Your task to perform on an android device: Clear all items from cart on newegg.com. Add lenovo thinkpad to the cart on newegg.com, then select checkout. Image 0: 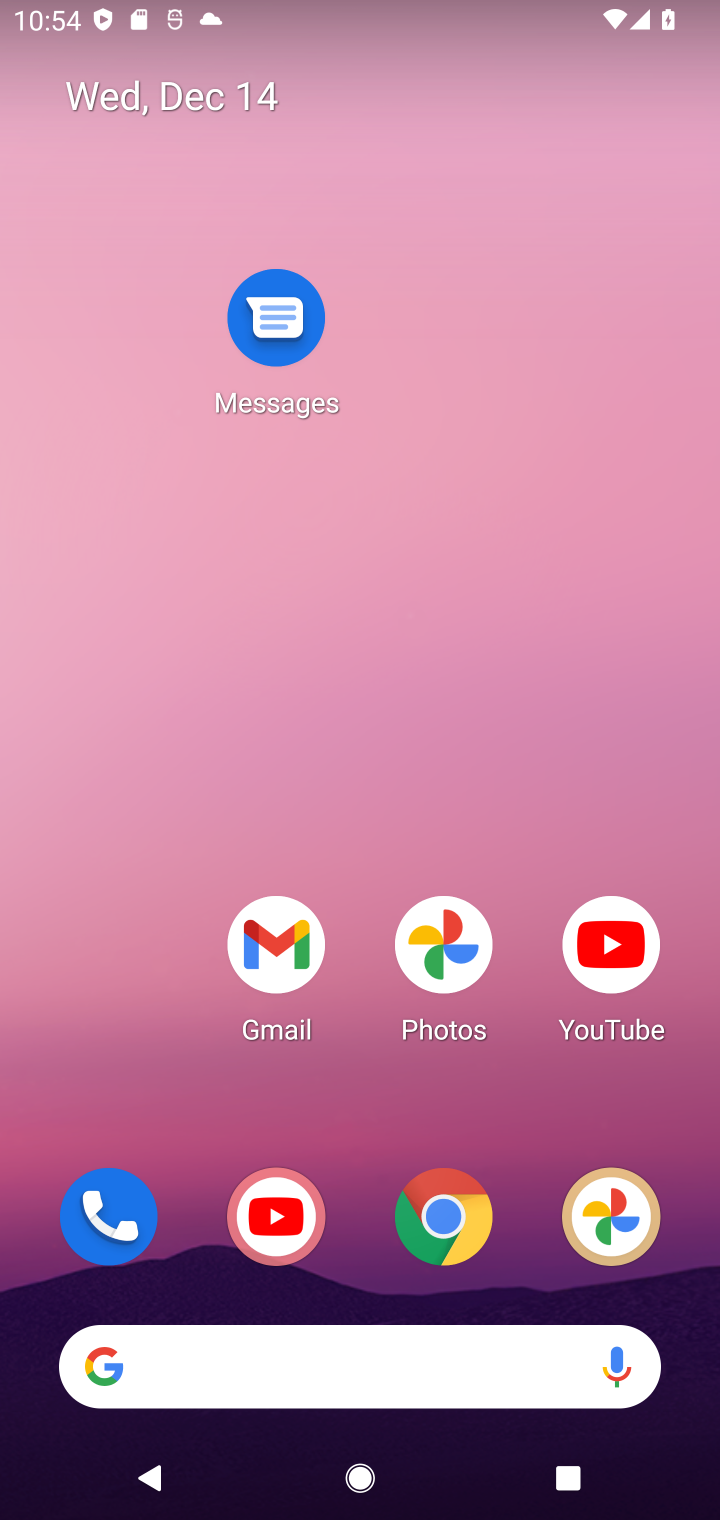
Step 0: drag from (310, 1189) to (335, 258)
Your task to perform on an android device: Clear all items from cart on newegg.com. Add lenovo thinkpad to the cart on newegg.com, then select checkout. Image 1: 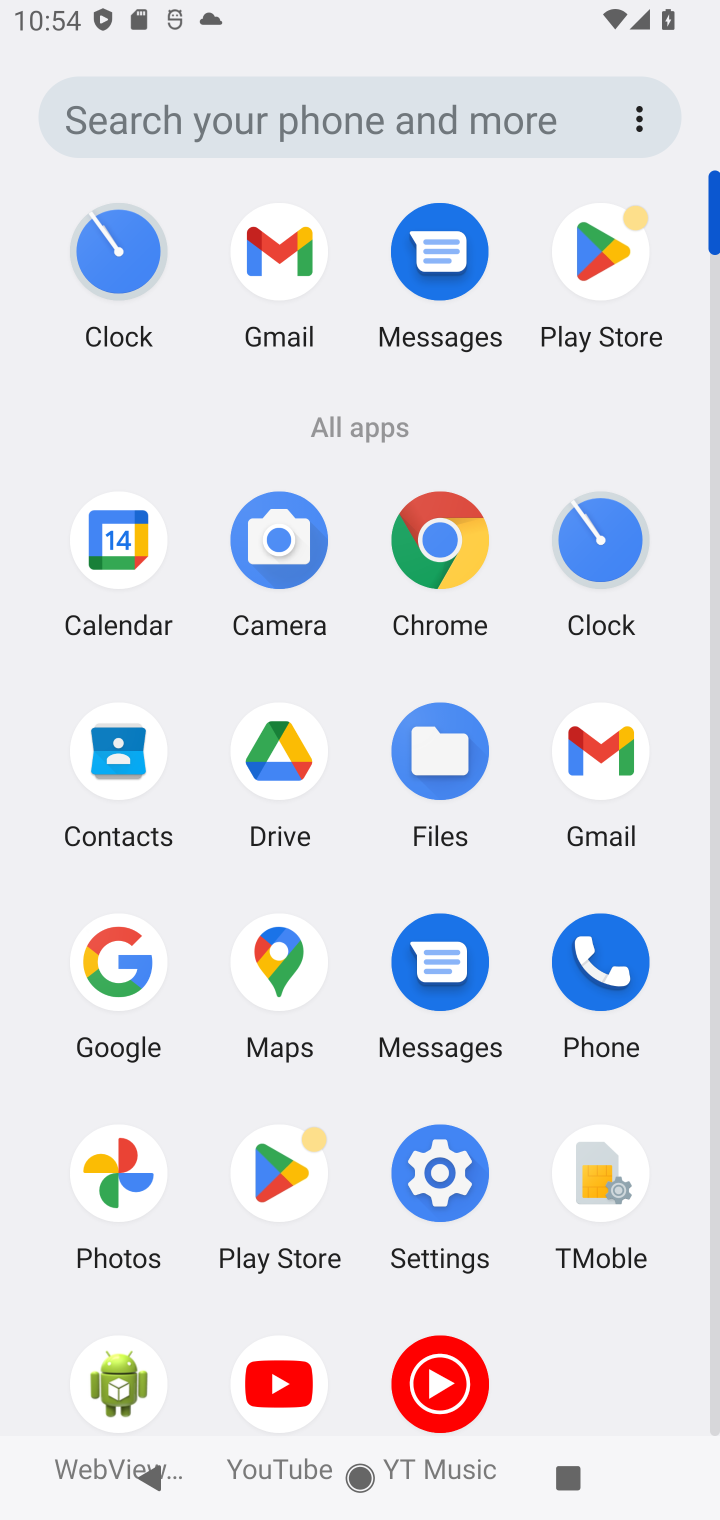
Step 1: click (91, 953)
Your task to perform on an android device: Clear all items from cart on newegg.com. Add lenovo thinkpad to the cart on newegg.com, then select checkout. Image 2: 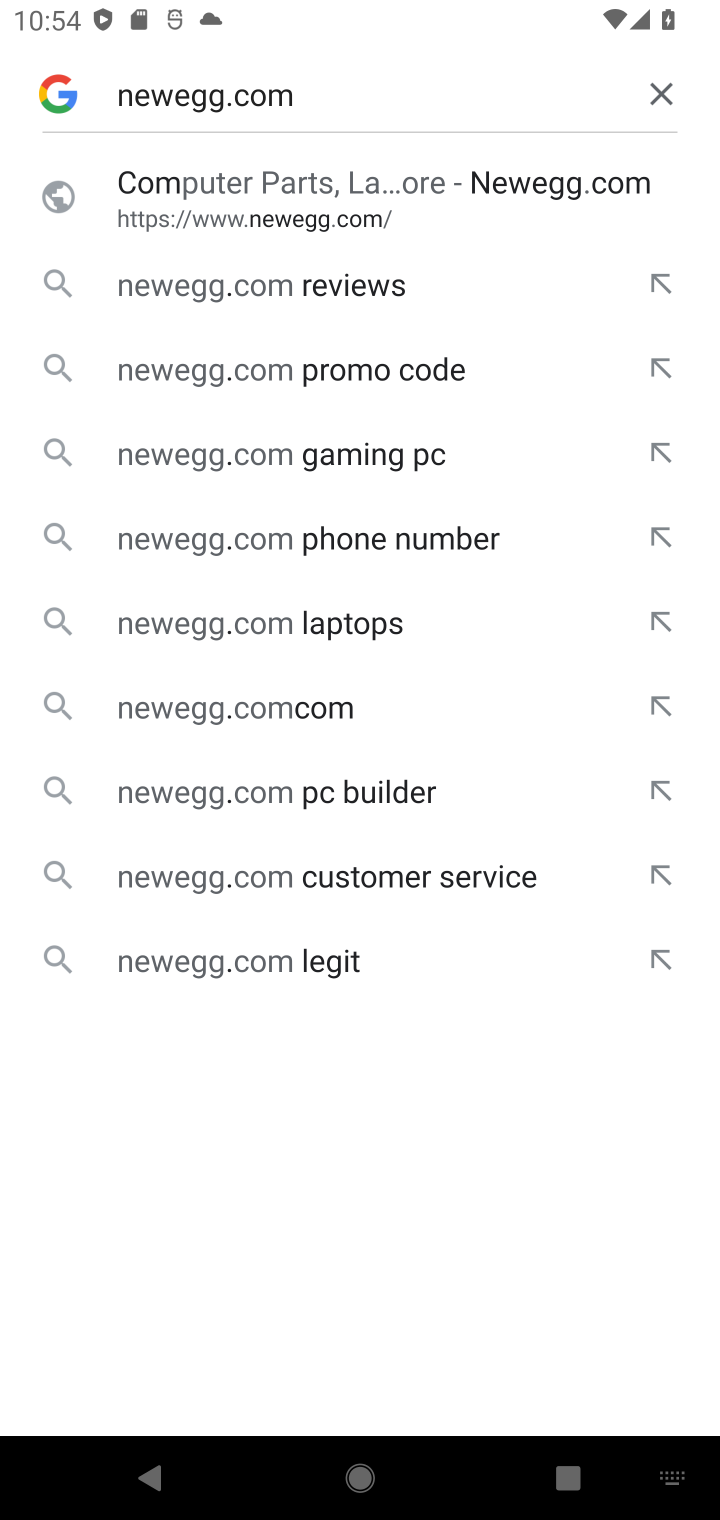
Step 2: click (260, 187)
Your task to perform on an android device: Clear all items from cart on newegg.com. Add lenovo thinkpad to the cart on newegg.com, then select checkout. Image 3: 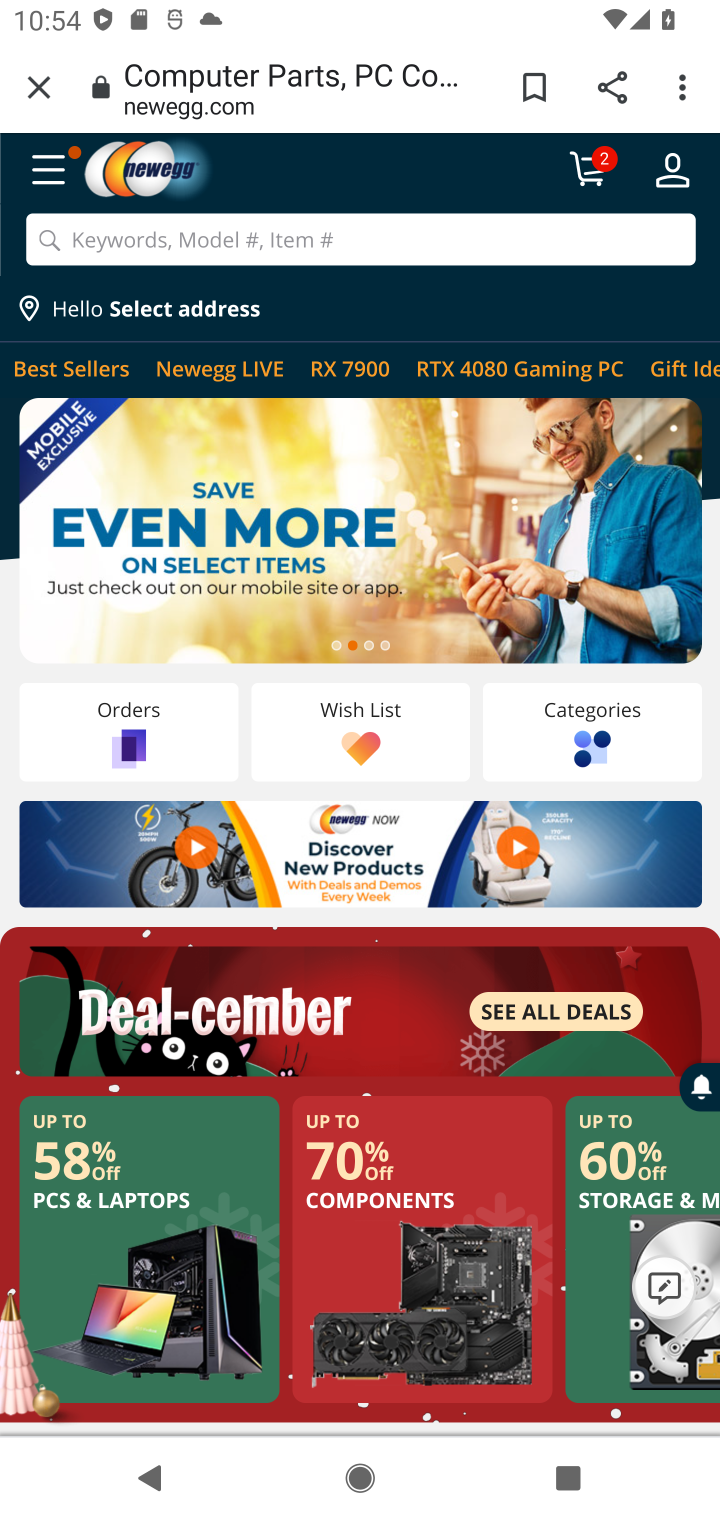
Step 3: click (588, 169)
Your task to perform on an android device: Clear all items from cart on newegg.com. Add lenovo thinkpad to the cart on newegg.com, then select checkout. Image 4: 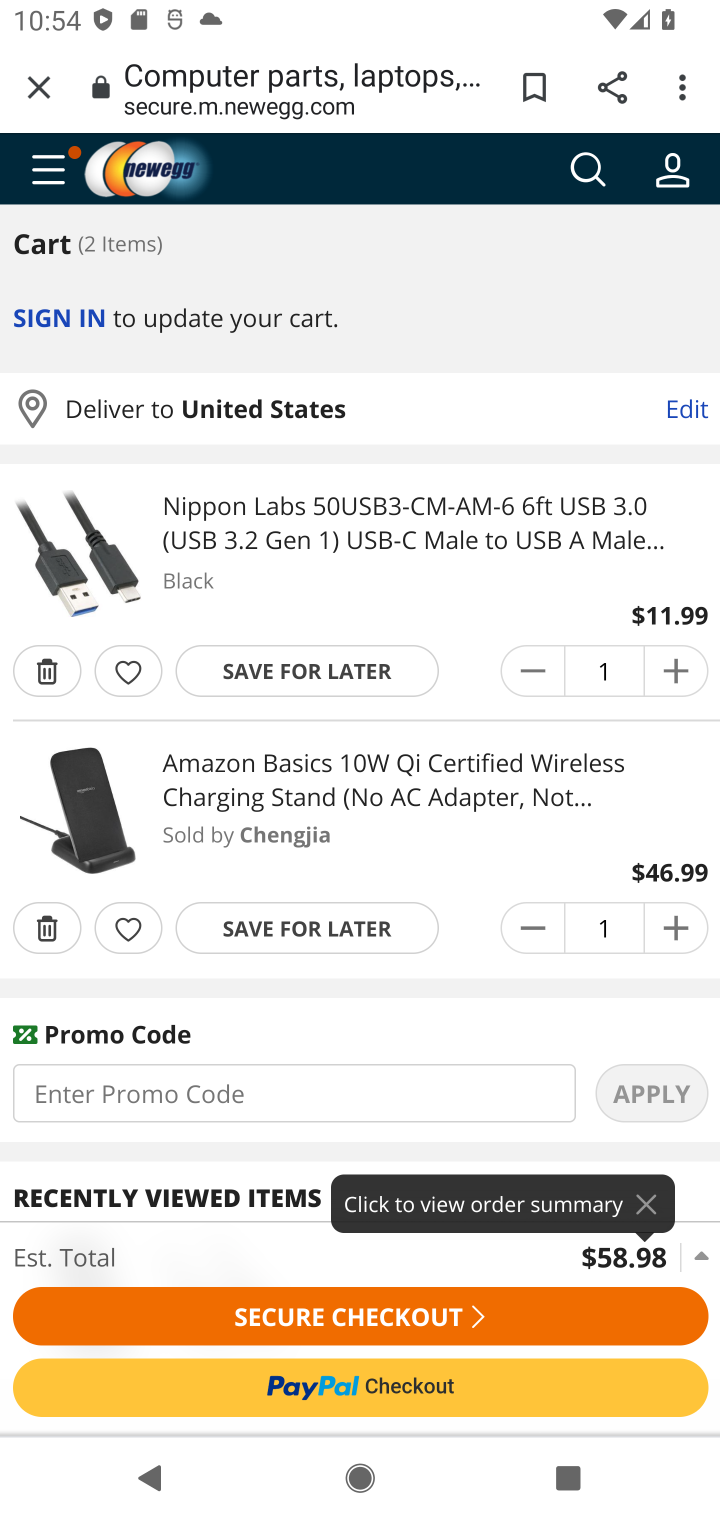
Step 4: click (43, 664)
Your task to perform on an android device: Clear all items from cart on newegg.com. Add lenovo thinkpad to the cart on newegg.com, then select checkout. Image 5: 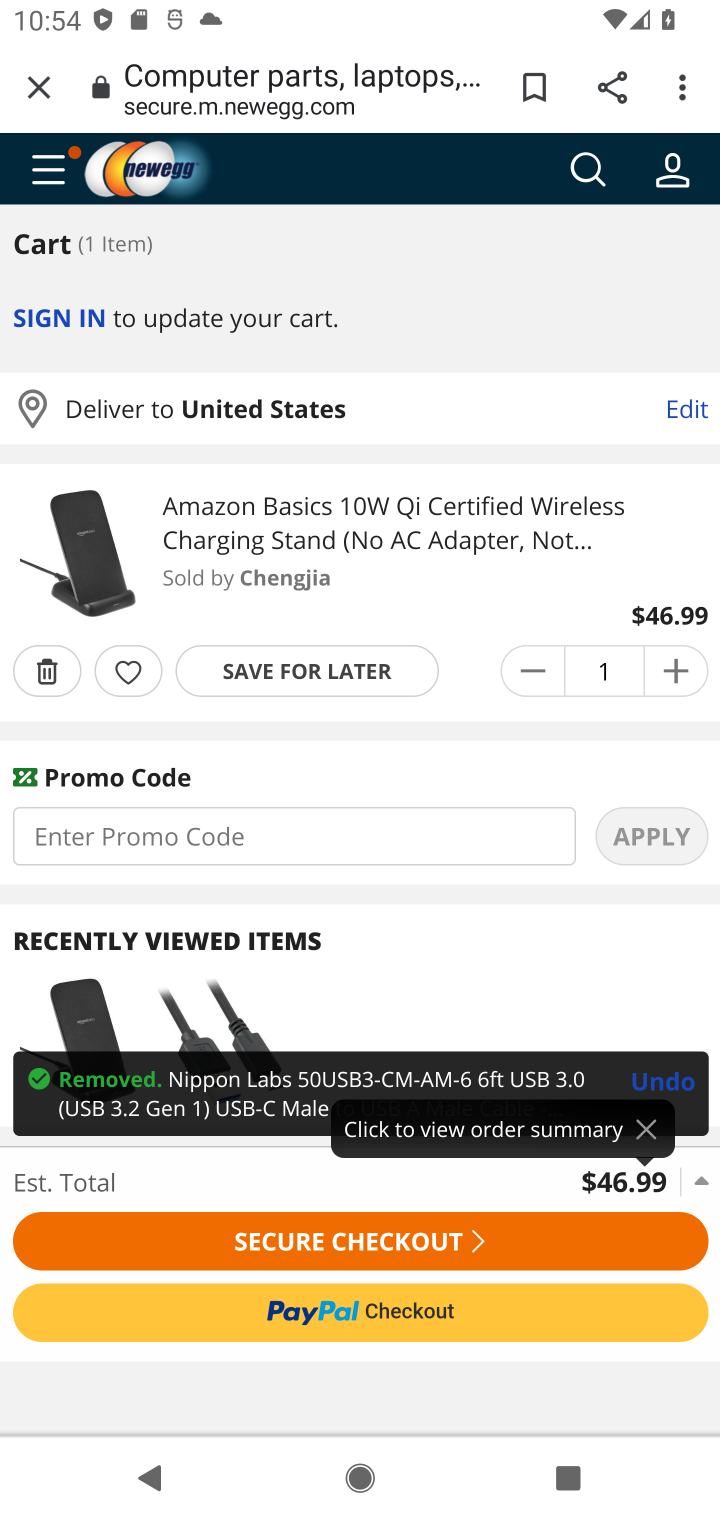
Step 5: click (43, 664)
Your task to perform on an android device: Clear all items from cart on newegg.com. Add lenovo thinkpad to the cart on newegg.com, then select checkout. Image 6: 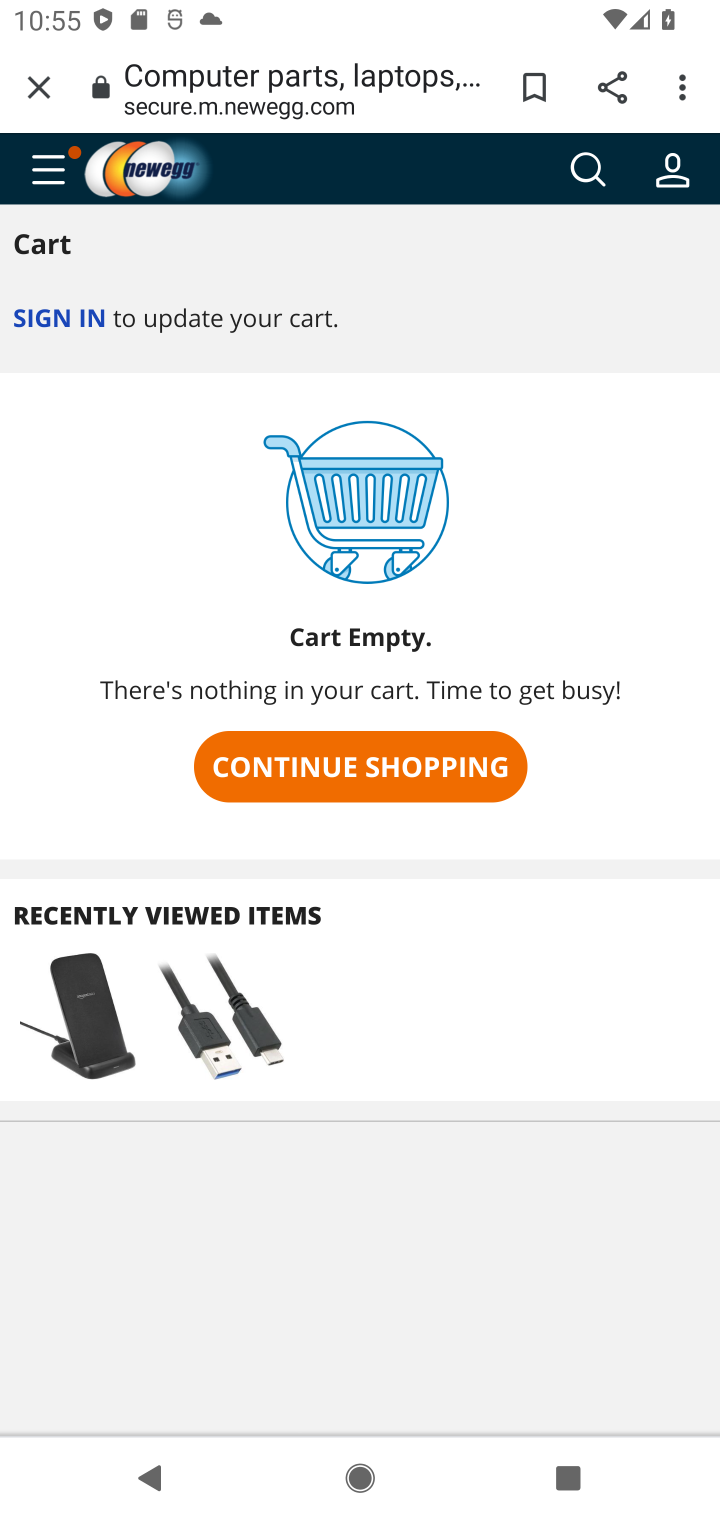
Step 6: click (588, 175)
Your task to perform on an android device: Clear all items from cart on newegg.com. Add lenovo thinkpad to the cart on newegg.com, then select checkout. Image 7: 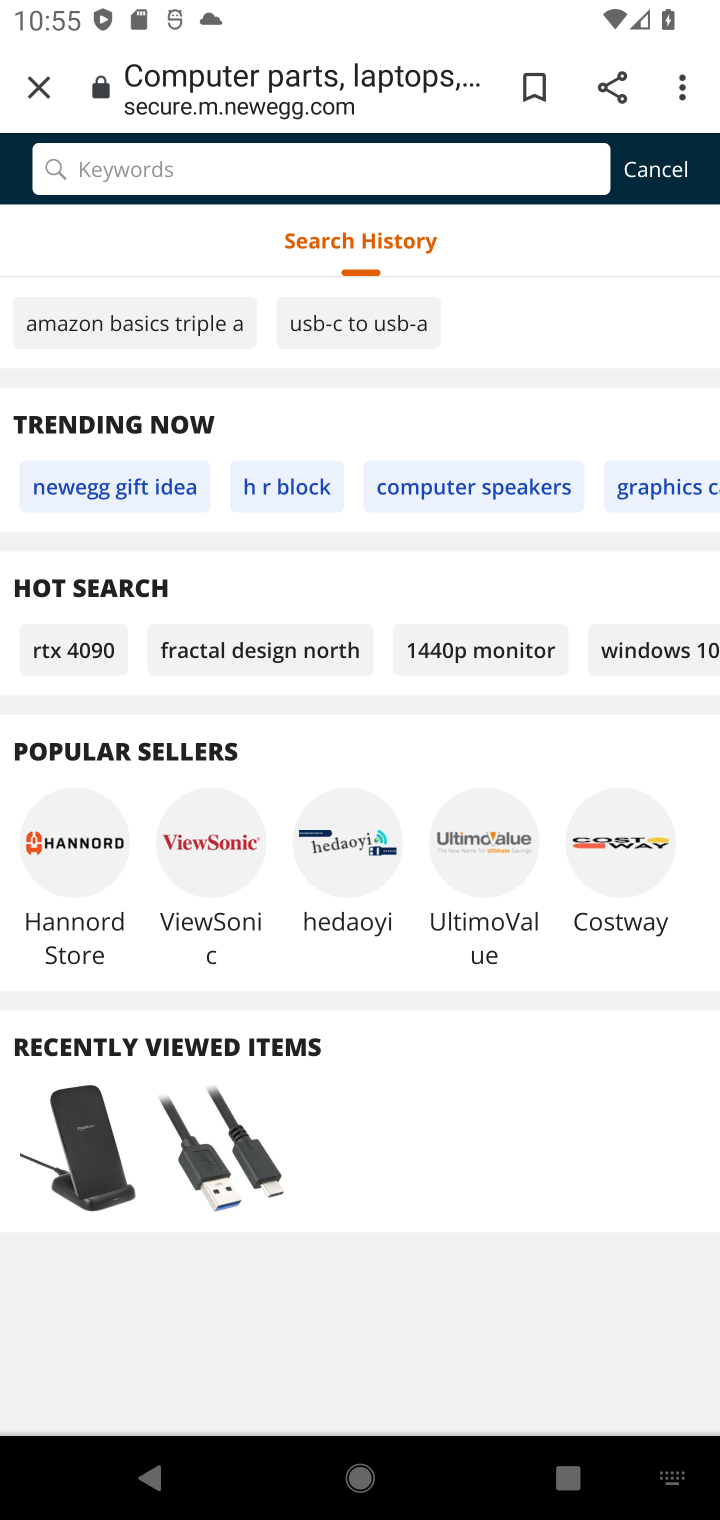
Step 7: type "lenovo thinkpad "
Your task to perform on an android device: Clear all items from cart on newegg.com. Add lenovo thinkpad to the cart on newegg.com, then select checkout. Image 8: 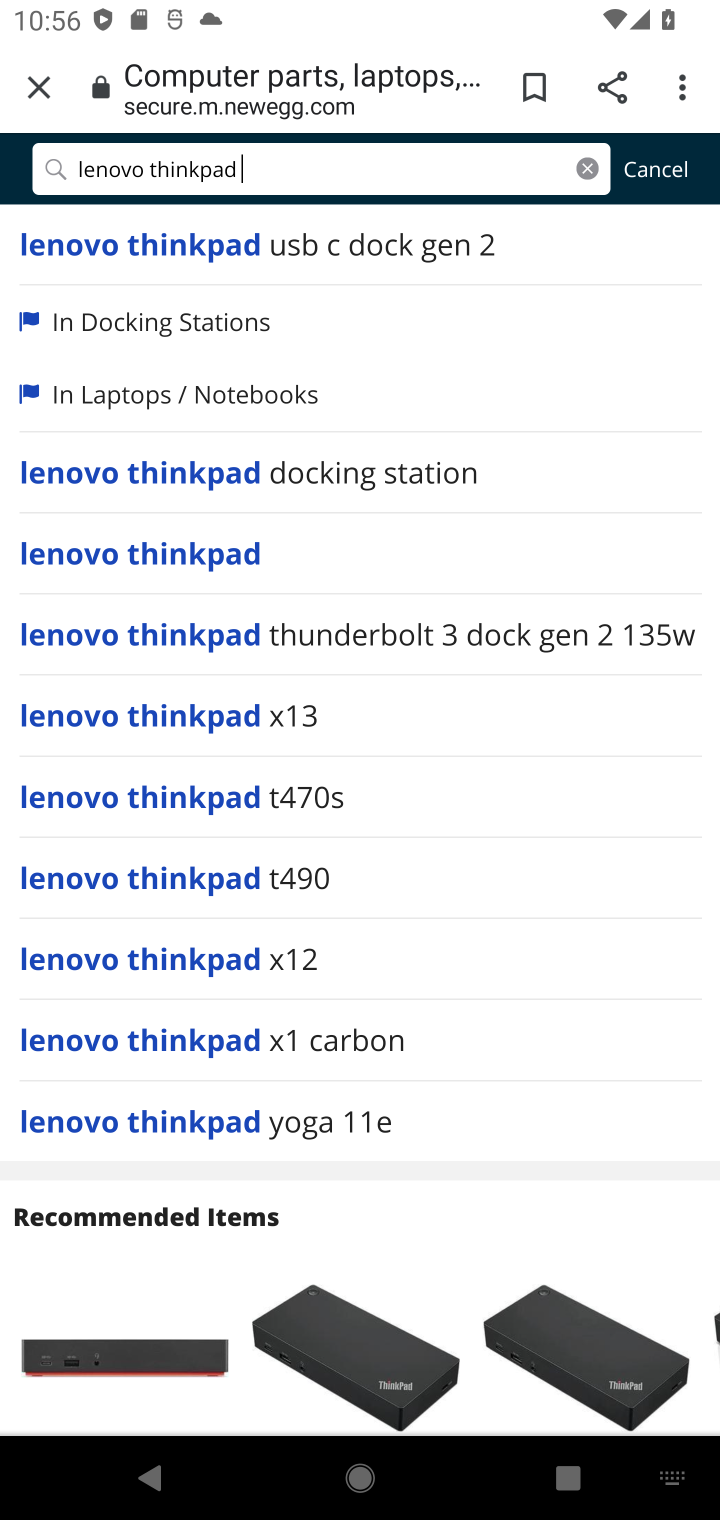
Step 8: click (140, 248)
Your task to perform on an android device: Clear all items from cart on newegg.com. Add lenovo thinkpad to the cart on newegg.com, then select checkout. Image 9: 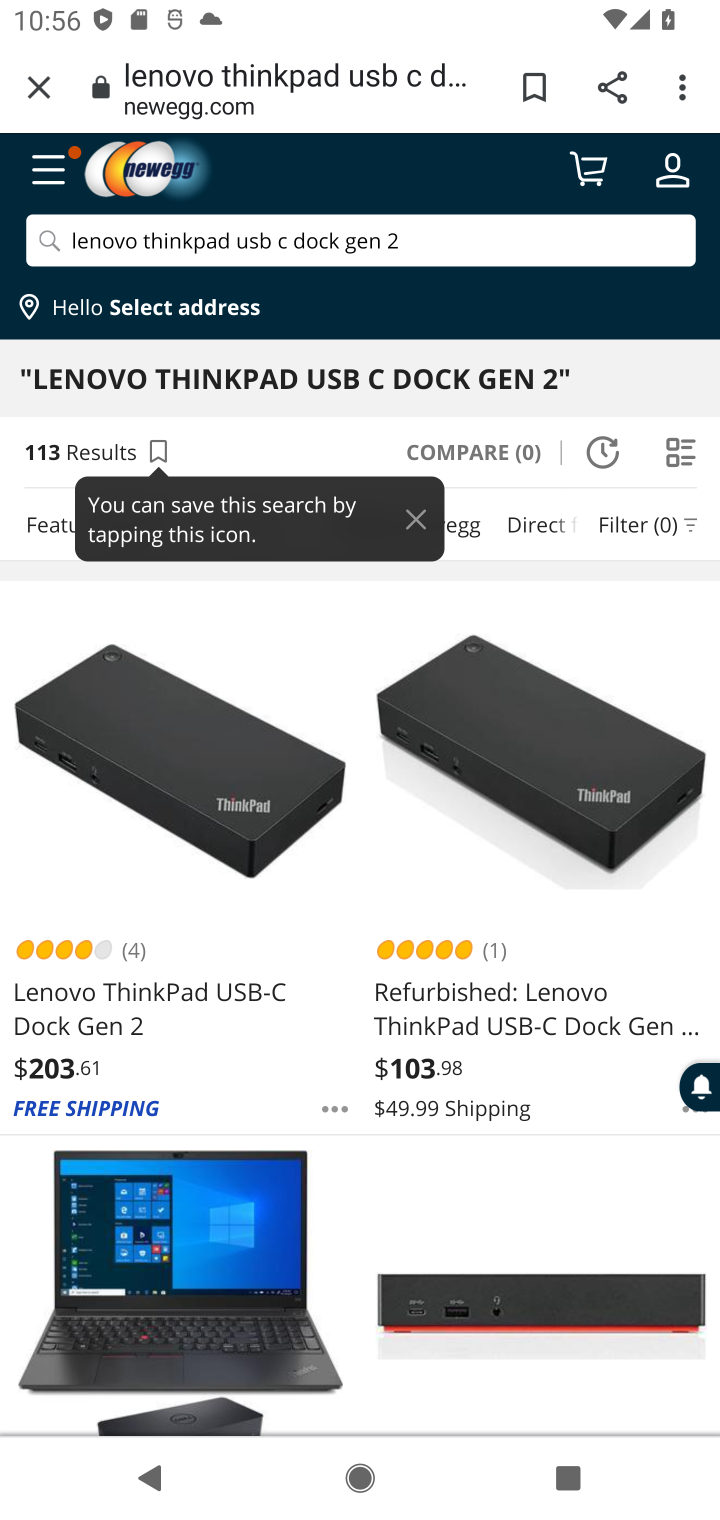
Step 9: click (124, 1006)
Your task to perform on an android device: Clear all items from cart on newegg.com. Add lenovo thinkpad to the cart on newegg.com, then select checkout. Image 10: 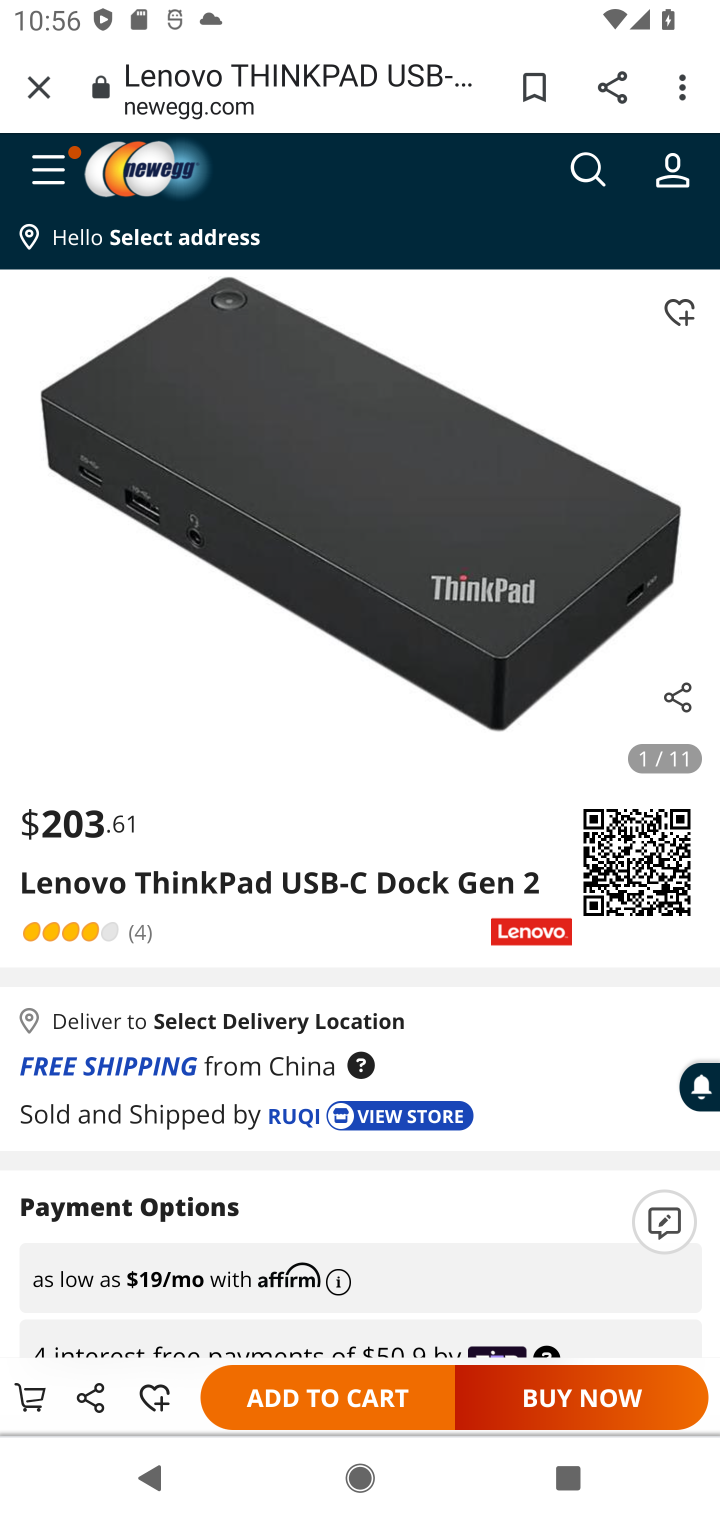
Step 10: click (343, 1401)
Your task to perform on an android device: Clear all items from cart on newegg.com. Add lenovo thinkpad to the cart on newegg.com, then select checkout. Image 11: 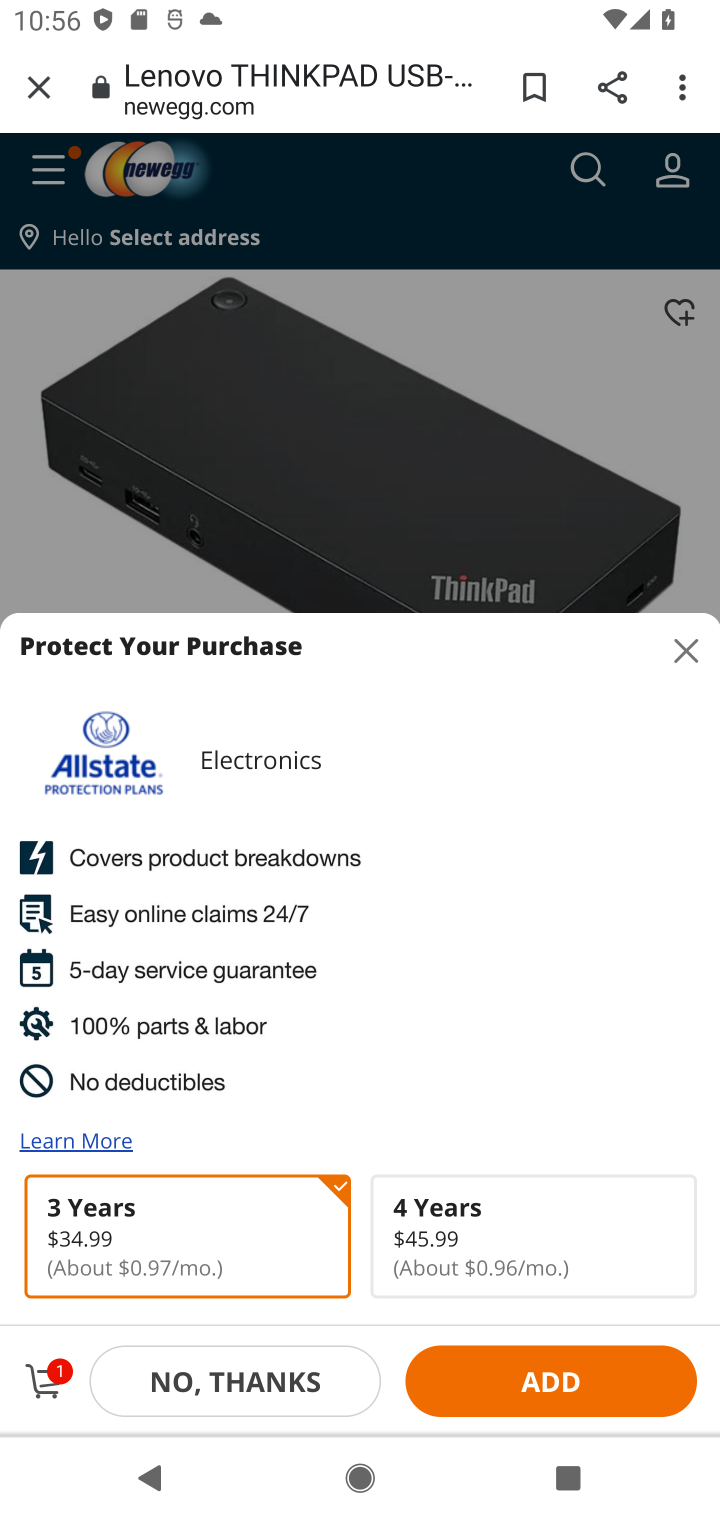
Step 11: click (39, 1377)
Your task to perform on an android device: Clear all items from cart on newegg.com. Add lenovo thinkpad to the cart on newegg.com, then select checkout. Image 12: 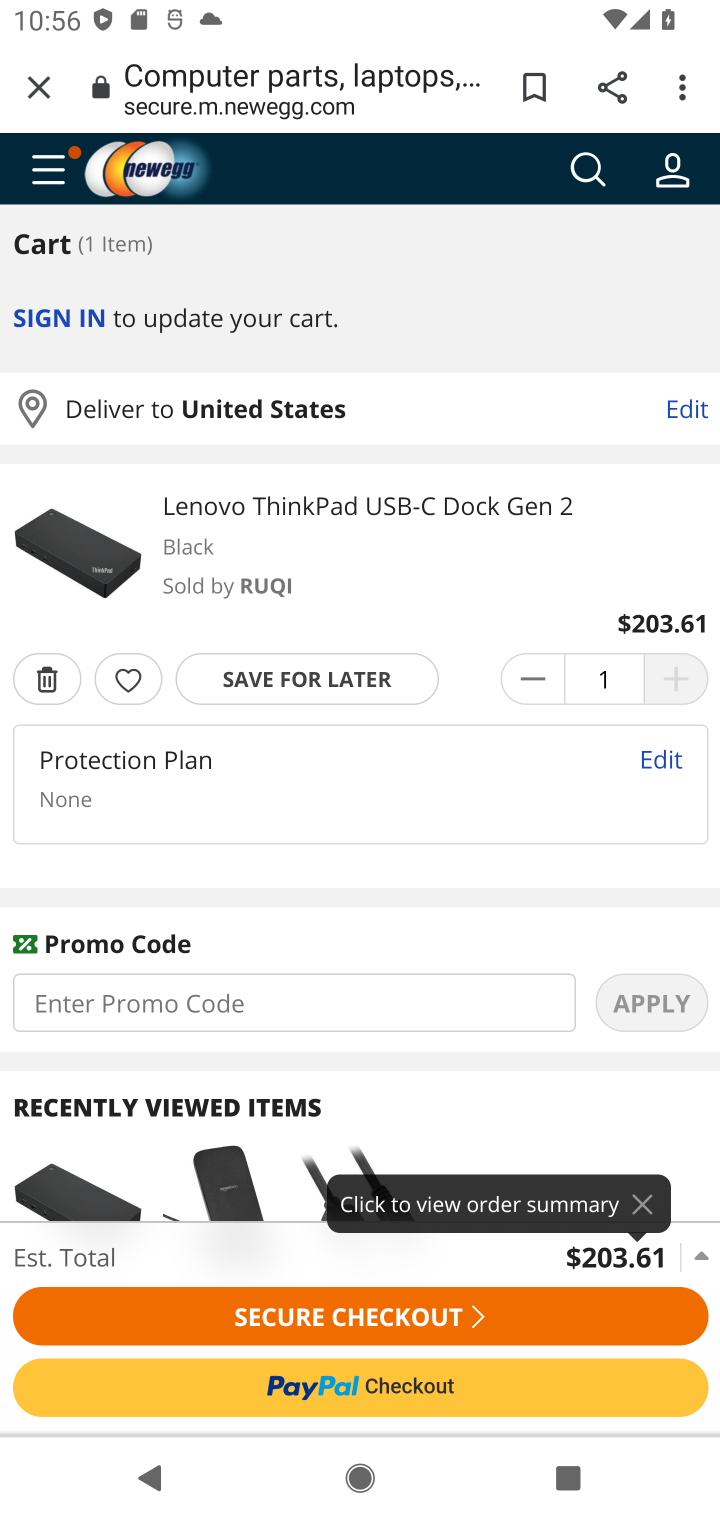
Step 12: click (367, 1319)
Your task to perform on an android device: Clear all items from cart on newegg.com. Add lenovo thinkpad to the cart on newegg.com, then select checkout. Image 13: 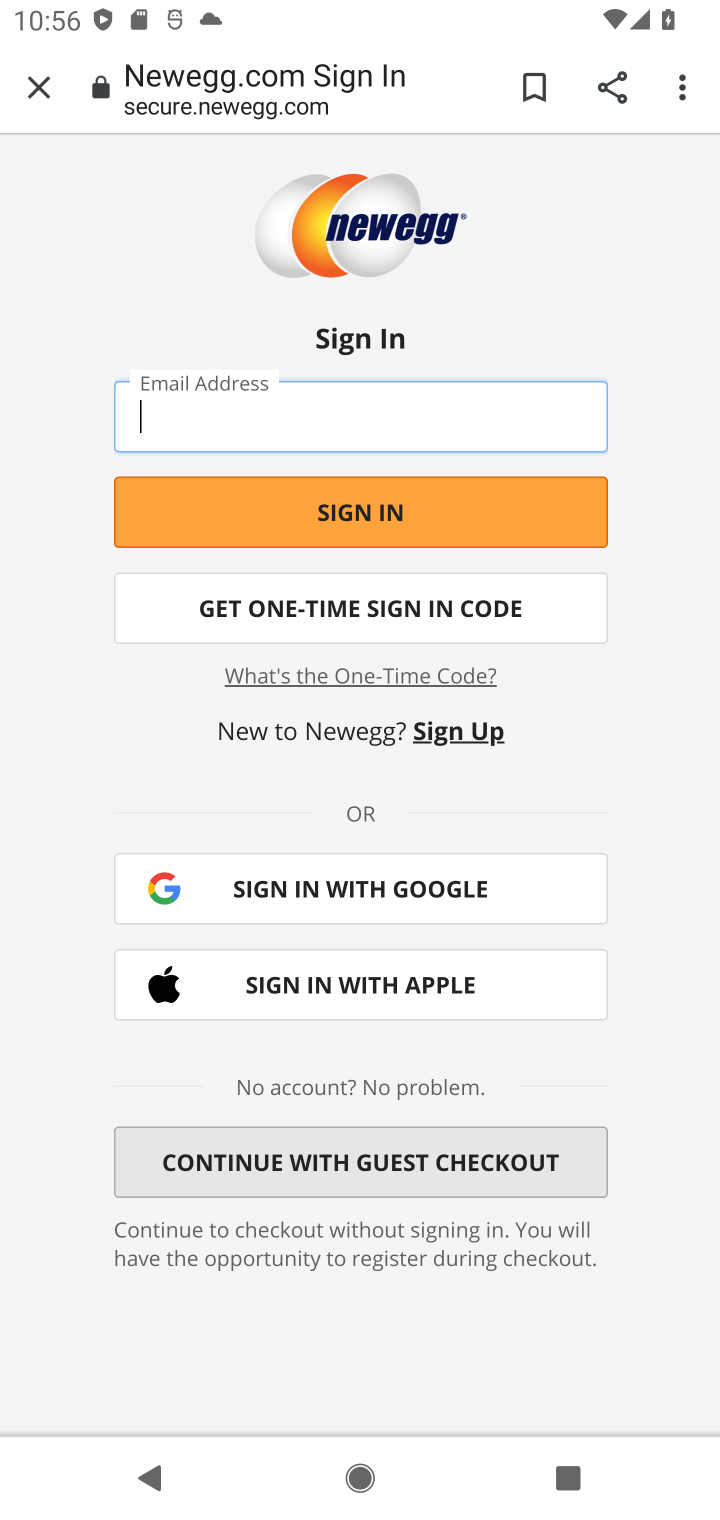
Step 13: task complete